Your task to perform on an android device: toggle airplane mode Image 0: 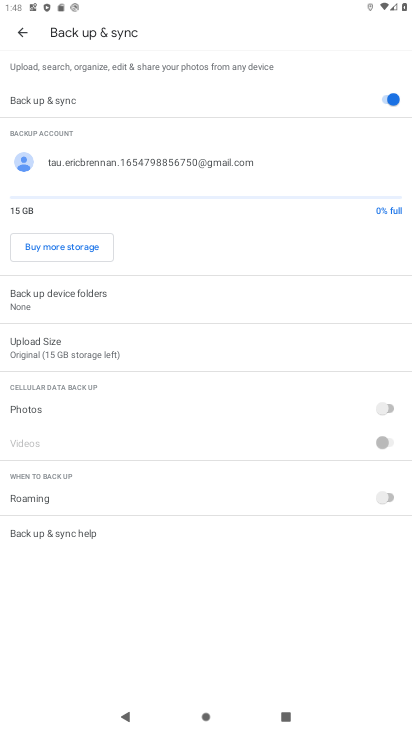
Step 0: press back button
Your task to perform on an android device: toggle airplane mode Image 1: 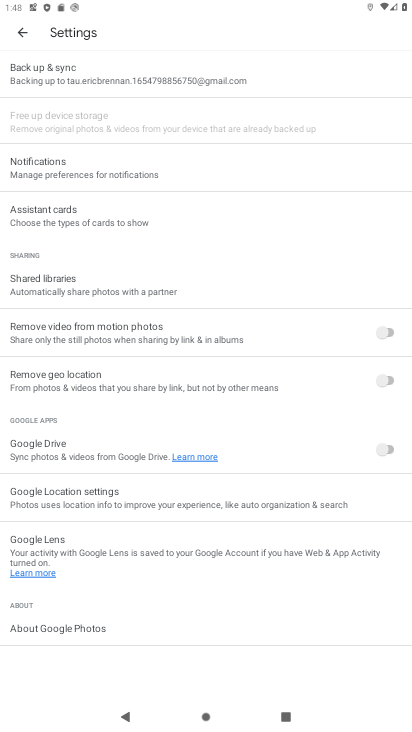
Step 1: press back button
Your task to perform on an android device: toggle airplane mode Image 2: 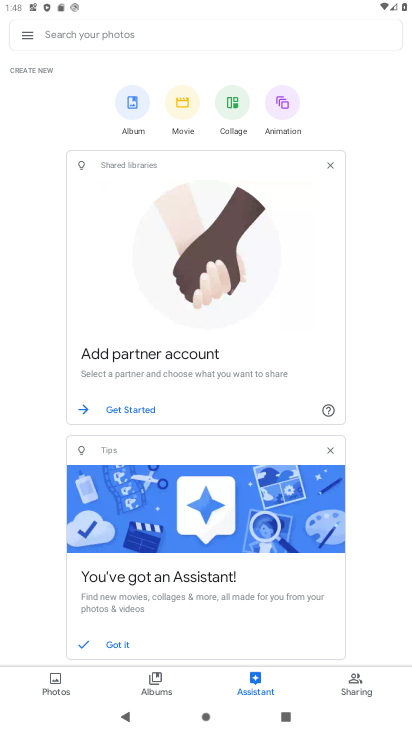
Step 2: press back button
Your task to perform on an android device: toggle airplane mode Image 3: 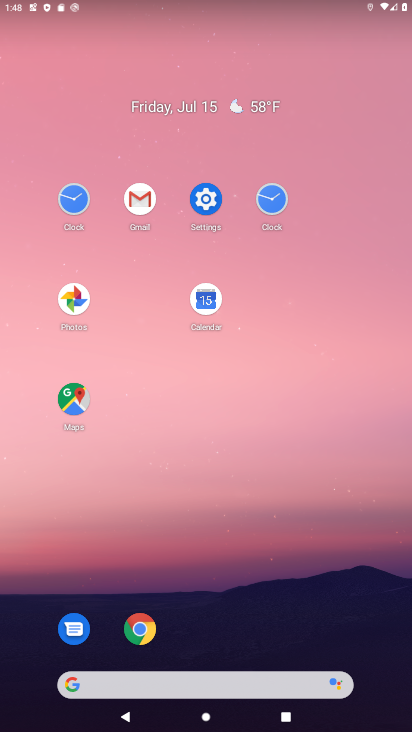
Step 3: click (205, 216)
Your task to perform on an android device: toggle airplane mode Image 4: 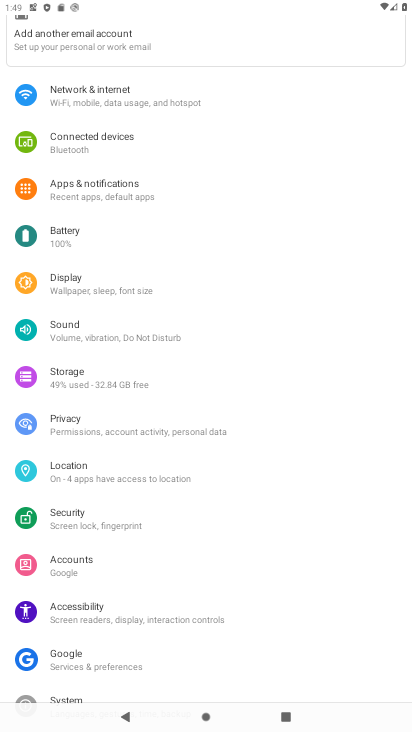
Step 4: click (144, 105)
Your task to perform on an android device: toggle airplane mode Image 5: 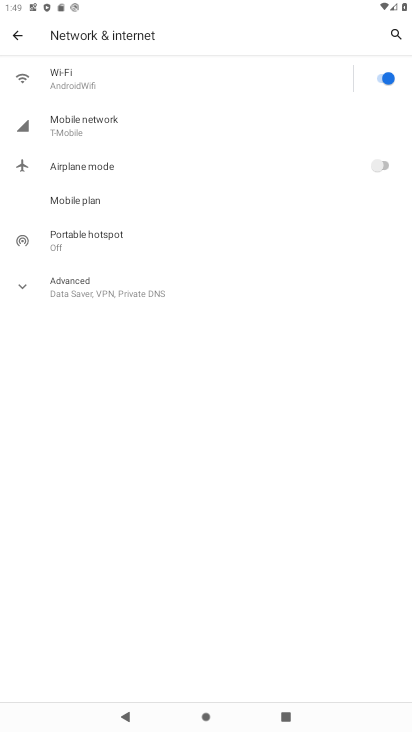
Step 5: click (367, 176)
Your task to perform on an android device: toggle airplane mode Image 6: 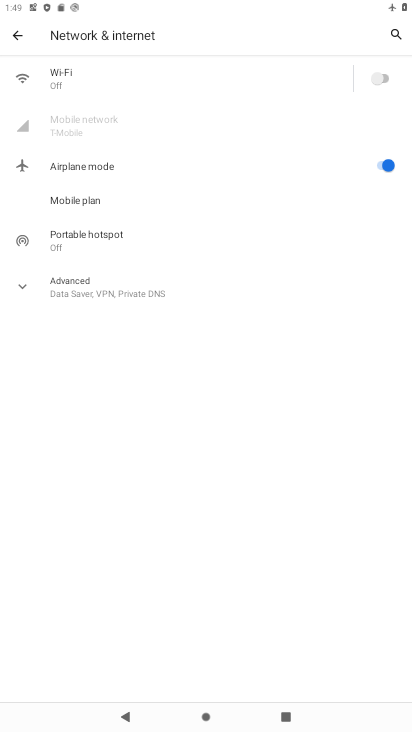
Step 6: task complete